Your task to perform on an android device: check android version Image 0: 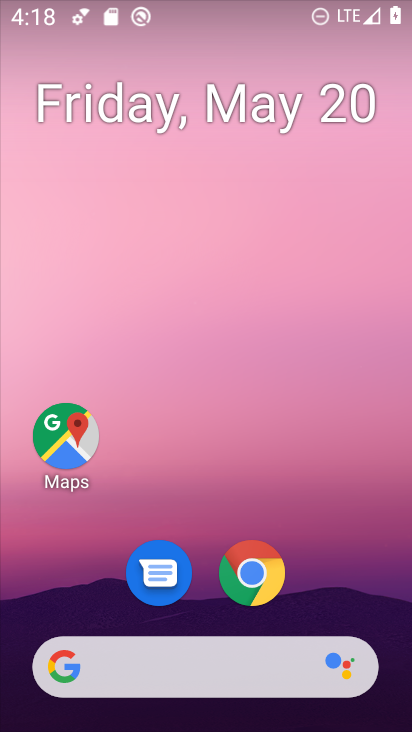
Step 0: drag from (363, 608) to (208, 46)
Your task to perform on an android device: check android version Image 1: 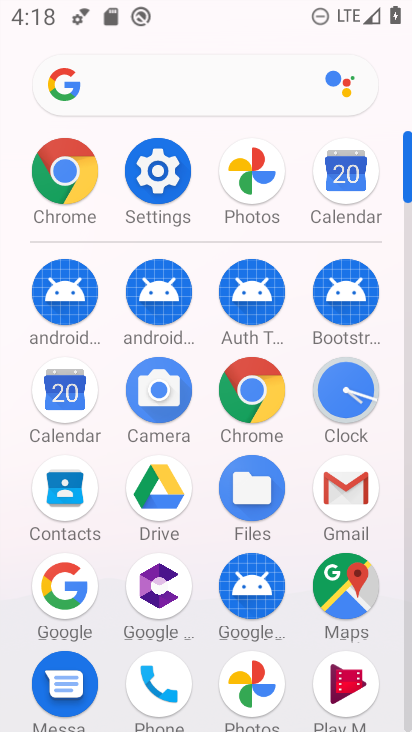
Step 1: click (173, 149)
Your task to perform on an android device: check android version Image 2: 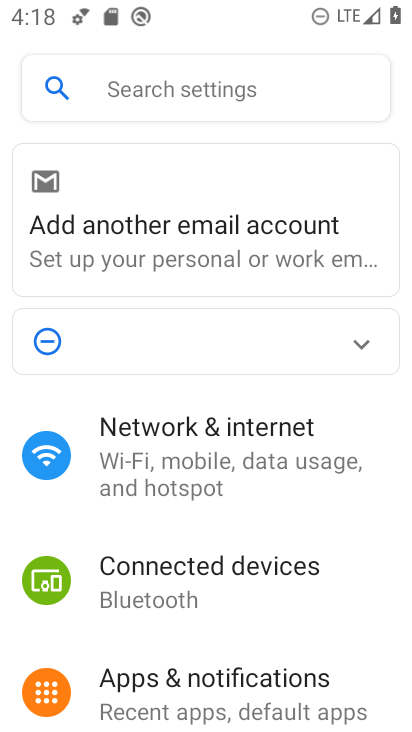
Step 2: task complete